Your task to perform on an android device: Go to network settings Image 0: 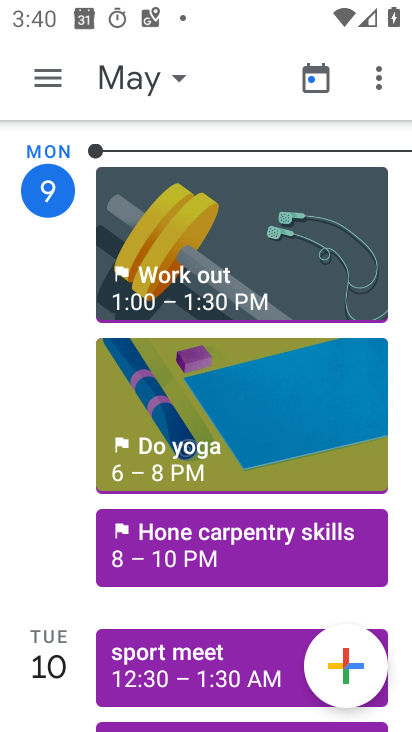
Step 0: press home button
Your task to perform on an android device: Go to network settings Image 1: 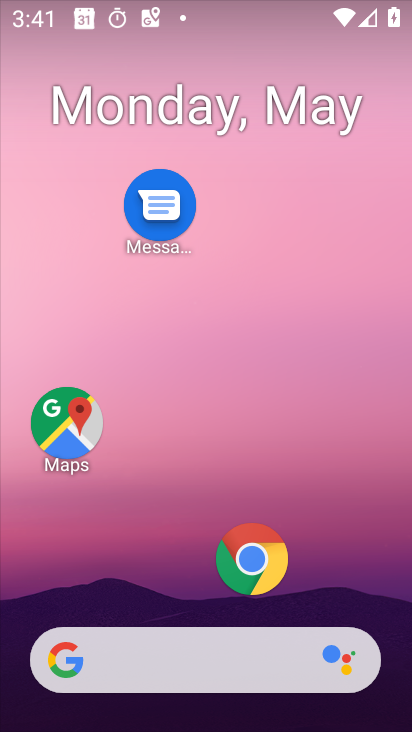
Step 1: drag from (172, 412) to (180, 145)
Your task to perform on an android device: Go to network settings Image 2: 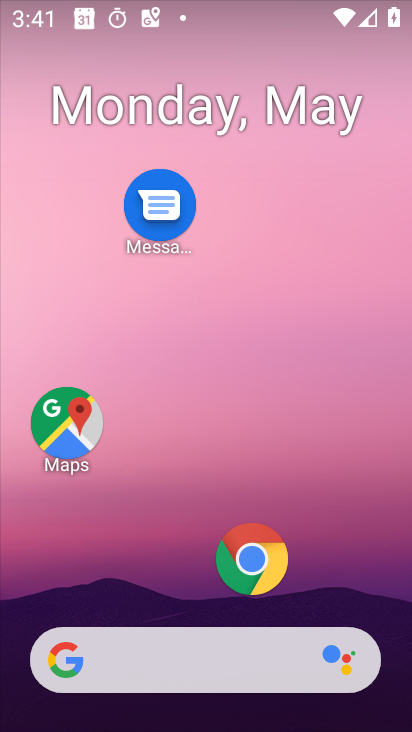
Step 2: drag from (150, 588) to (183, 111)
Your task to perform on an android device: Go to network settings Image 3: 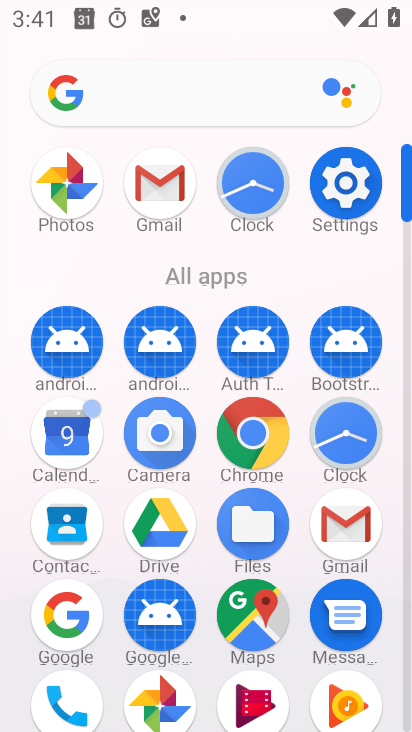
Step 3: click (350, 180)
Your task to perform on an android device: Go to network settings Image 4: 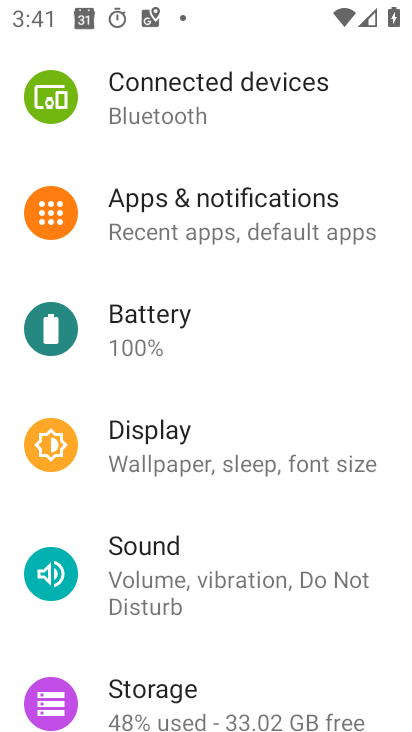
Step 4: drag from (238, 268) to (213, 495)
Your task to perform on an android device: Go to network settings Image 5: 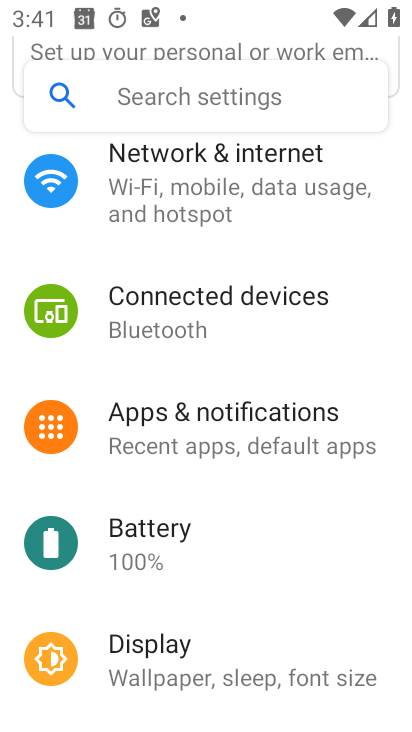
Step 5: click (186, 197)
Your task to perform on an android device: Go to network settings Image 6: 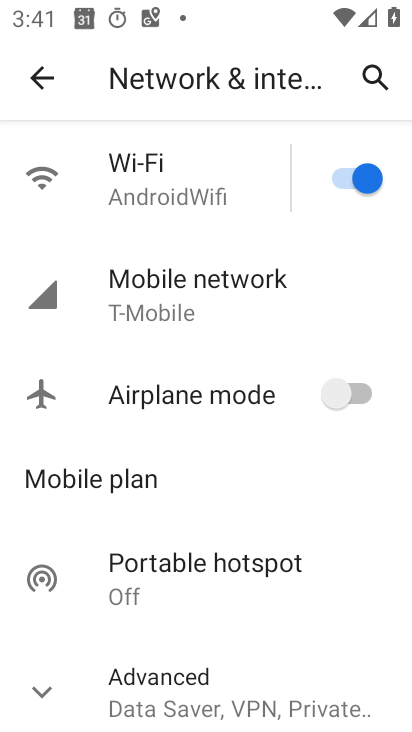
Step 6: task complete